Your task to perform on an android device: Is it going to rain tomorrow? Image 0: 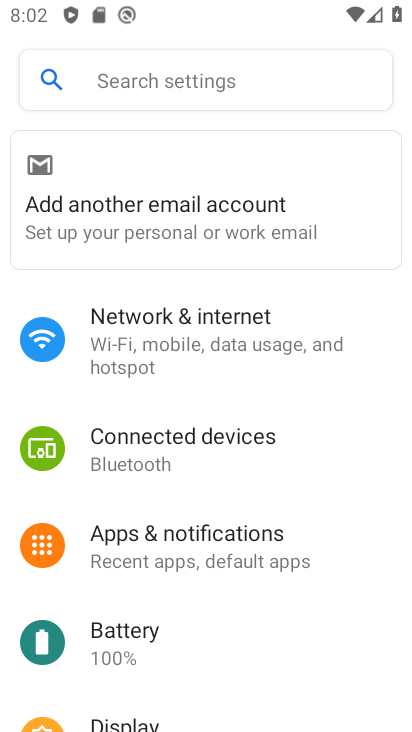
Step 0: press home button
Your task to perform on an android device: Is it going to rain tomorrow? Image 1: 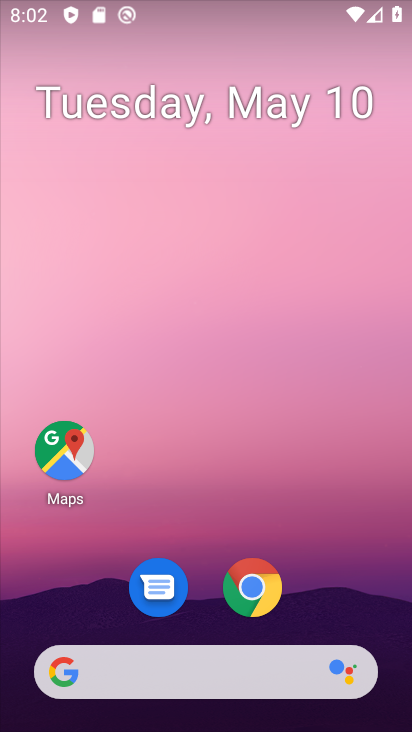
Step 1: drag from (88, 193) to (365, 250)
Your task to perform on an android device: Is it going to rain tomorrow? Image 2: 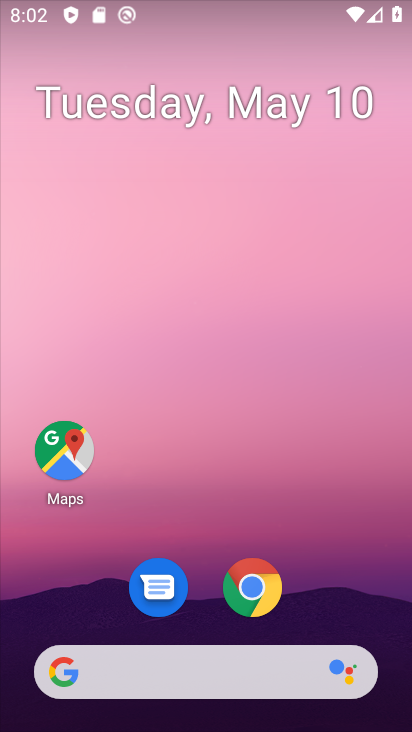
Step 2: drag from (359, 596) to (331, 86)
Your task to perform on an android device: Is it going to rain tomorrow? Image 3: 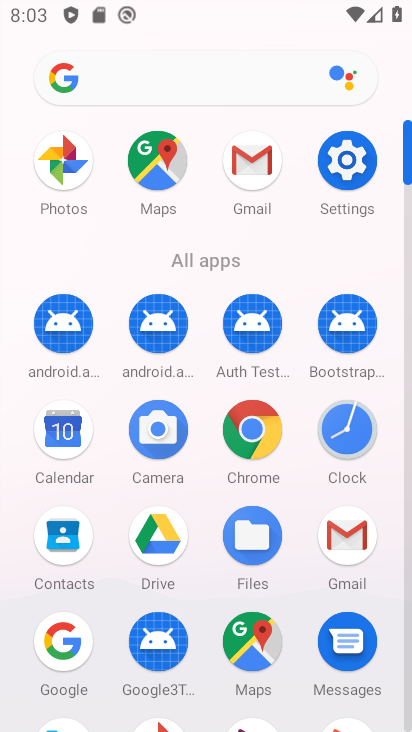
Step 3: click (60, 692)
Your task to perform on an android device: Is it going to rain tomorrow? Image 4: 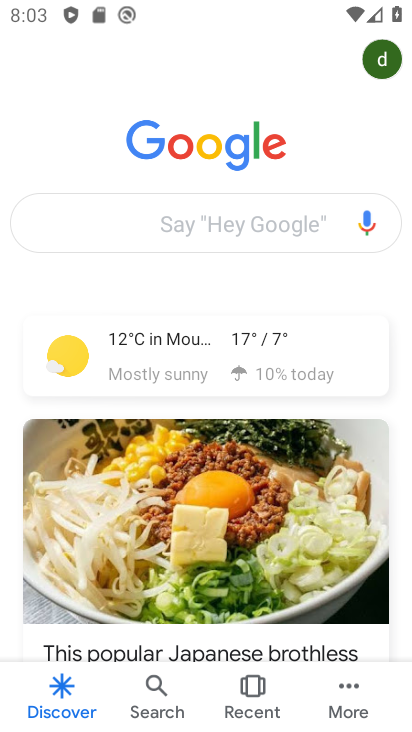
Step 4: click (223, 329)
Your task to perform on an android device: Is it going to rain tomorrow? Image 5: 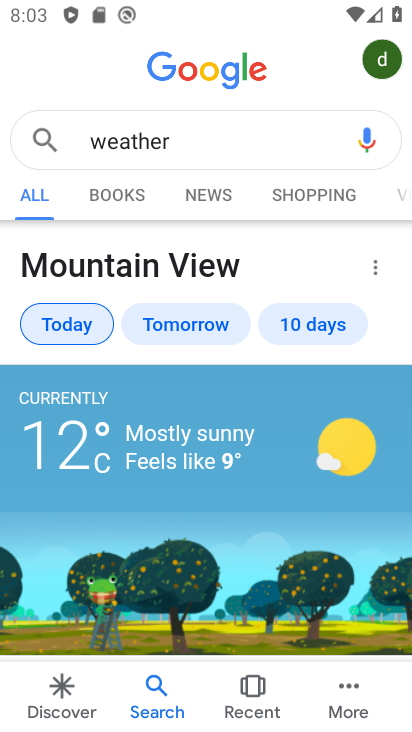
Step 5: click (183, 319)
Your task to perform on an android device: Is it going to rain tomorrow? Image 6: 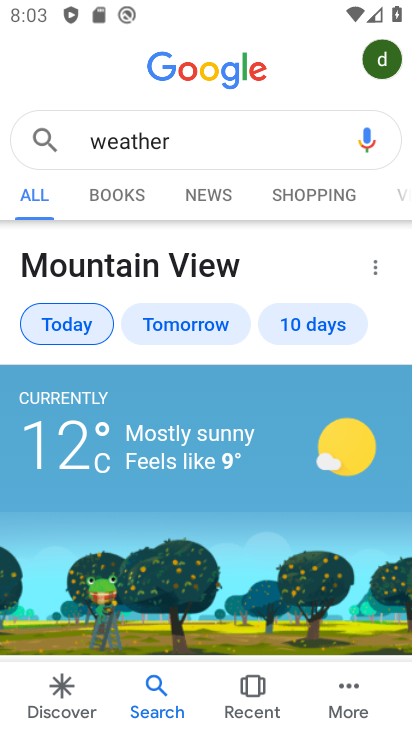
Step 6: task complete